Your task to perform on an android device: Add razer blade to the cart on bestbuy.com Image 0: 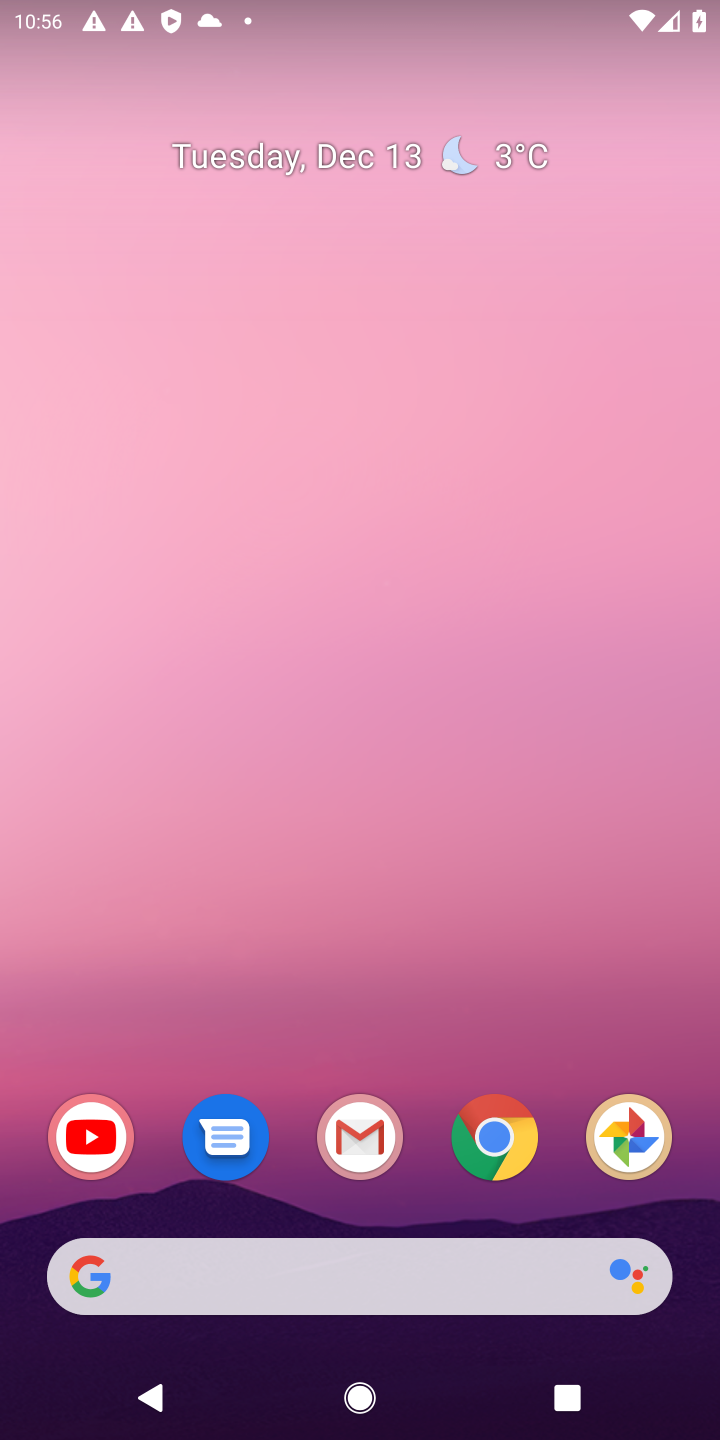
Step 0: click (496, 1156)
Your task to perform on an android device: Add razer blade to the cart on bestbuy.com Image 1: 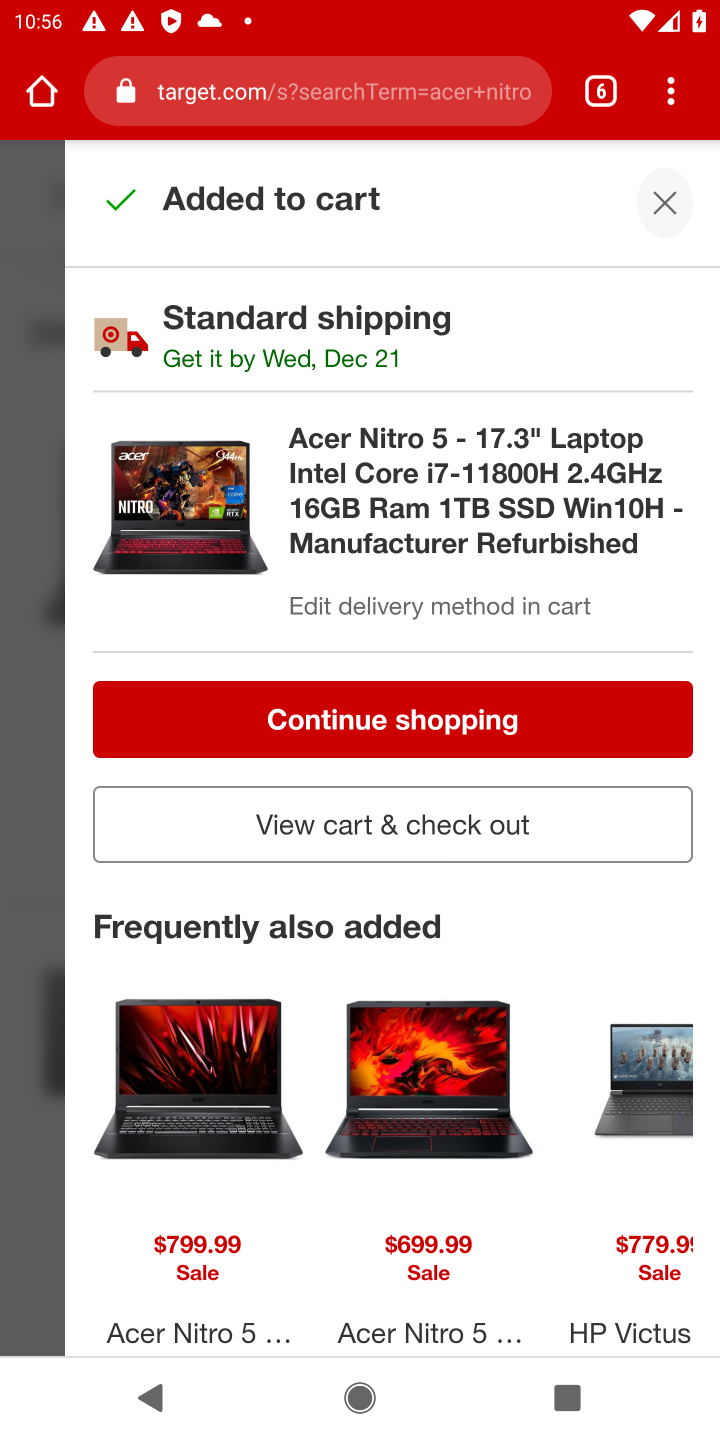
Step 1: click (602, 97)
Your task to perform on an android device: Add razer blade to the cart on bestbuy.com Image 2: 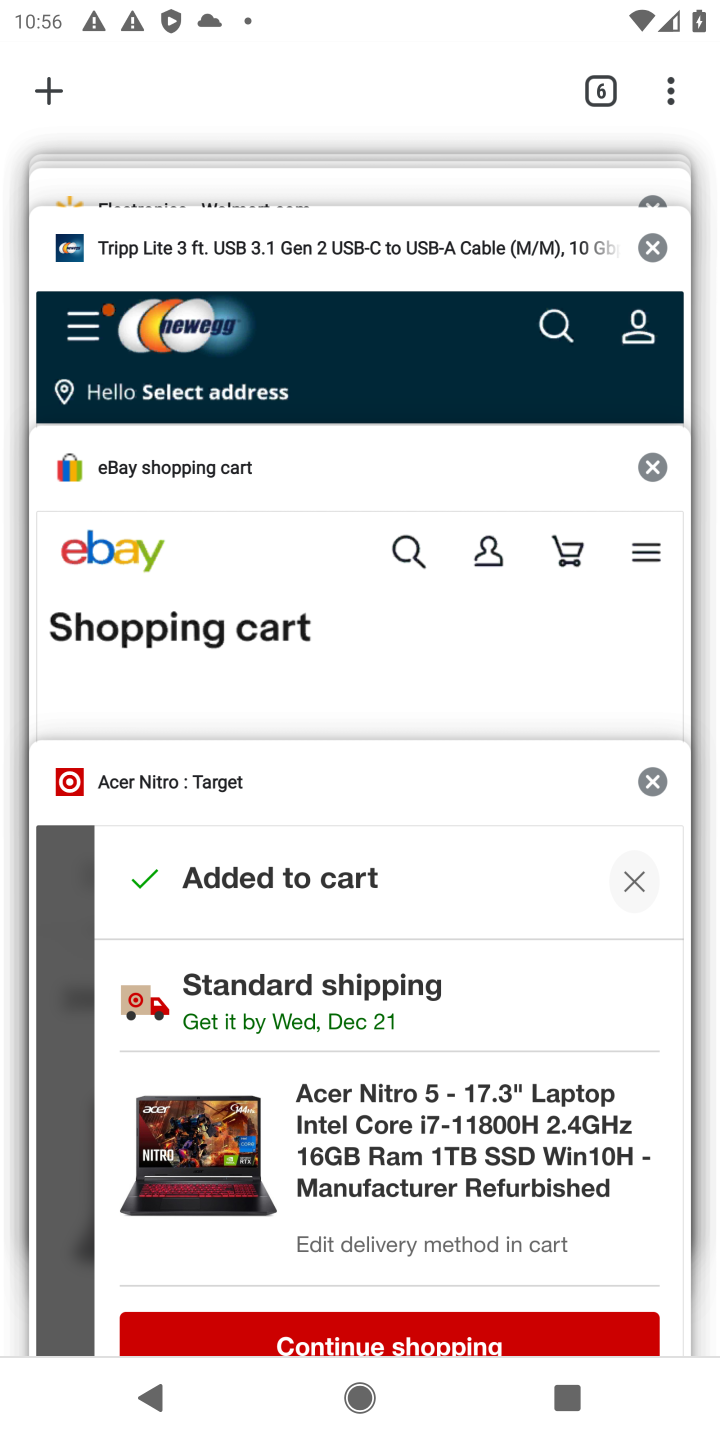
Step 2: drag from (280, 184) to (232, 854)
Your task to perform on an android device: Add razer blade to the cart on bestbuy.com Image 3: 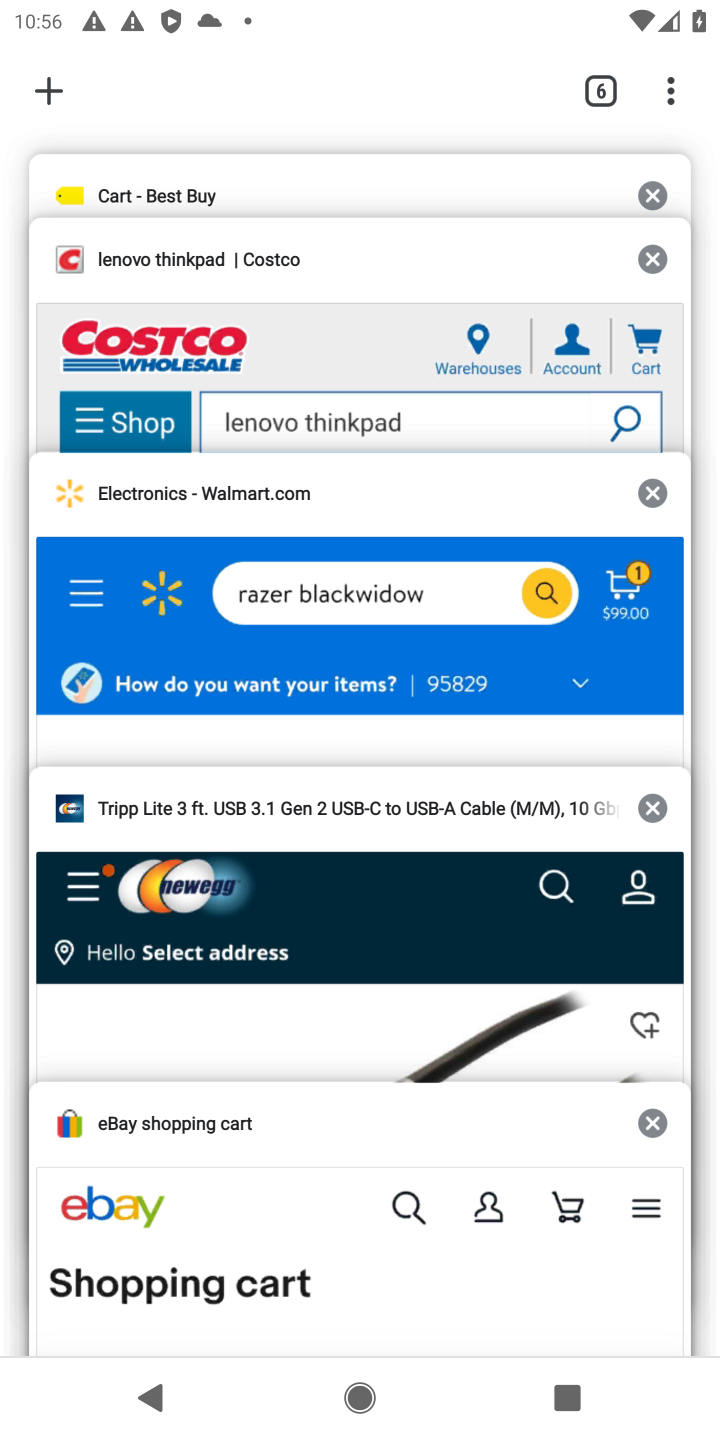
Step 3: click (251, 189)
Your task to perform on an android device: Add razer blade to the cart on bestbuy.com Image 4: 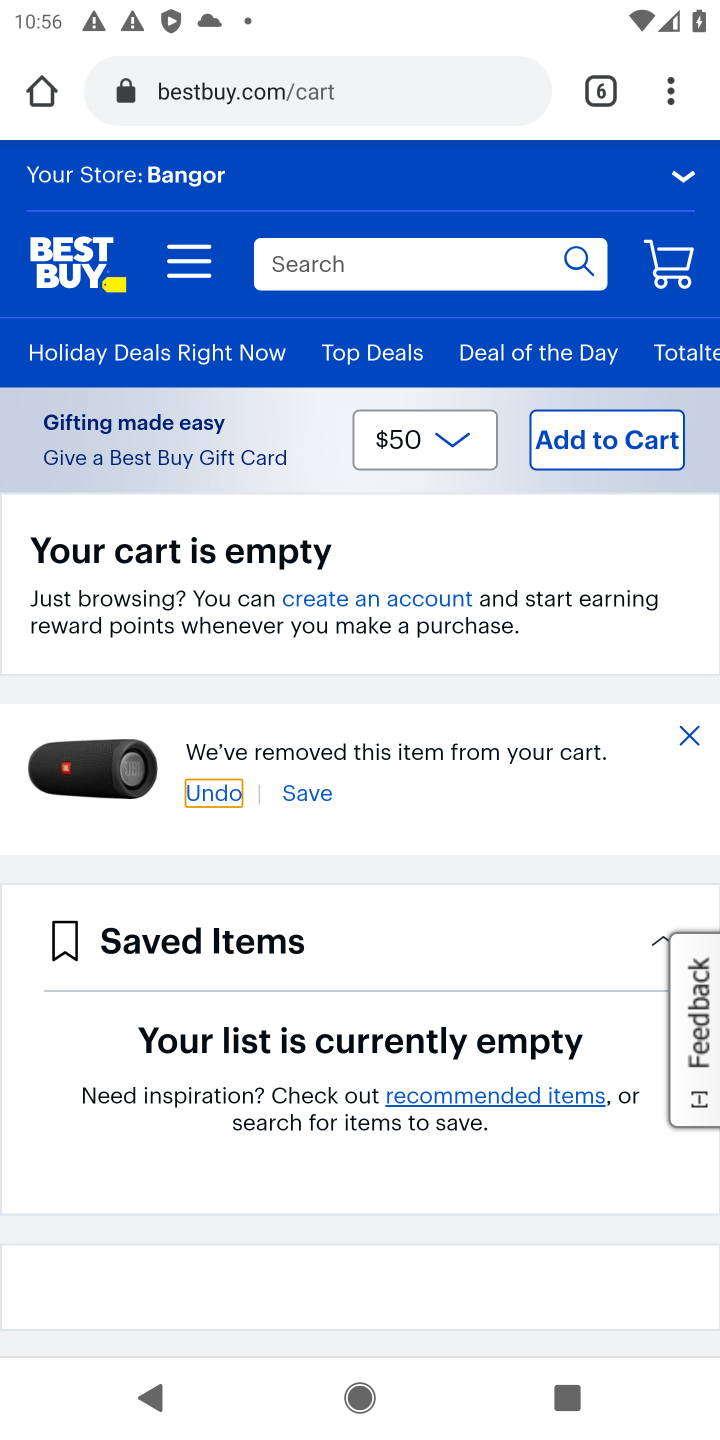
Step 4: click (344, 273)
Your task to perform on an android device: Add razer blade to the cart on bestbuy.com Image 5: 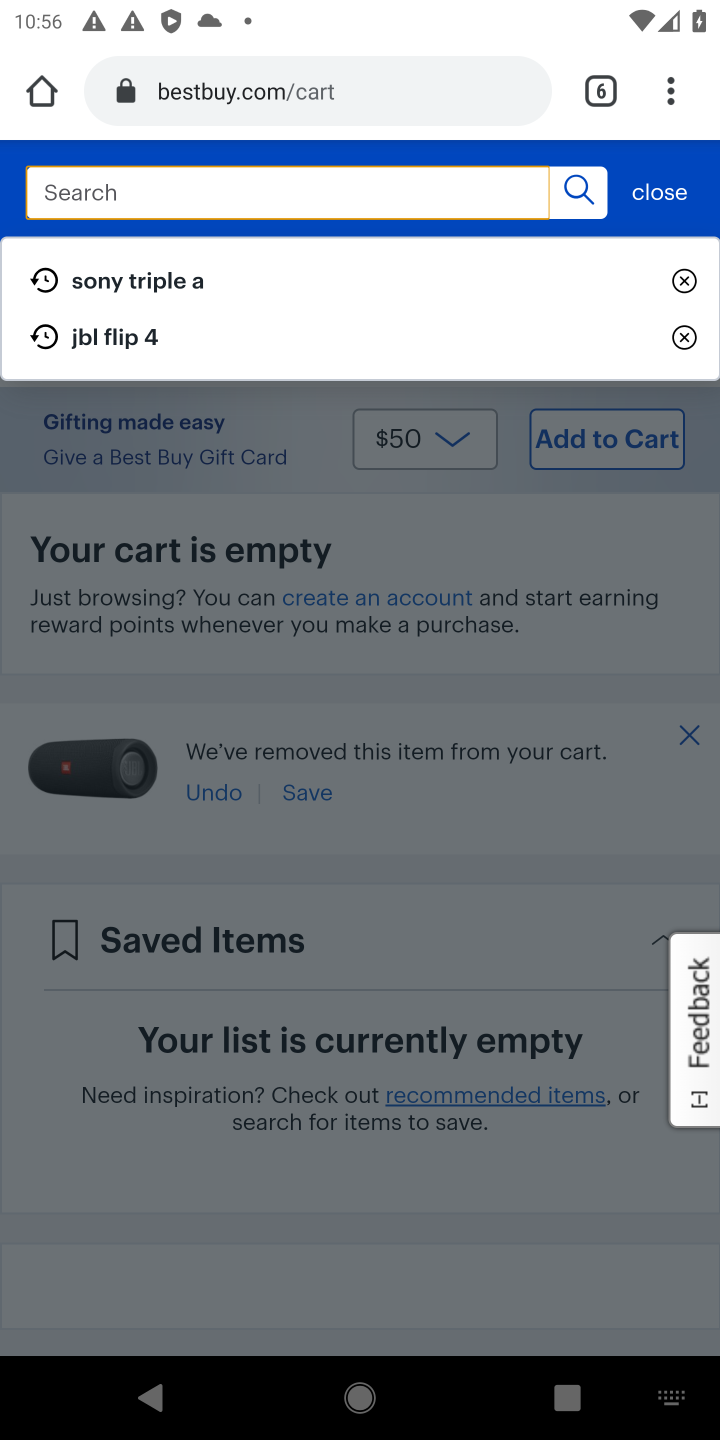
Step 5: type "razer blade"
Your task to perform on an android device: Add razer blade to the cart on bestbuy.com Image 6: 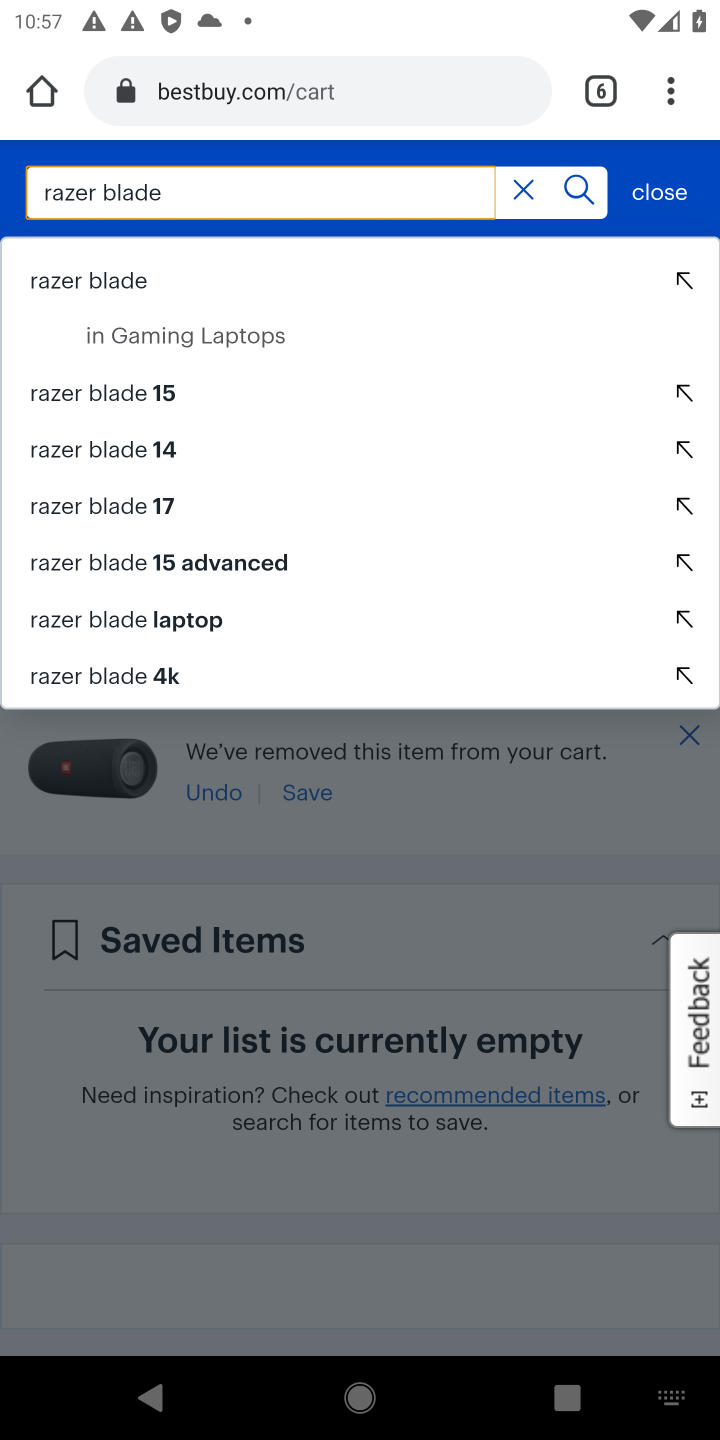
Step 6: click (118, 274)
Your task to perform on an android device: Add razer blade to the cart on bestbuy.com Image 7: 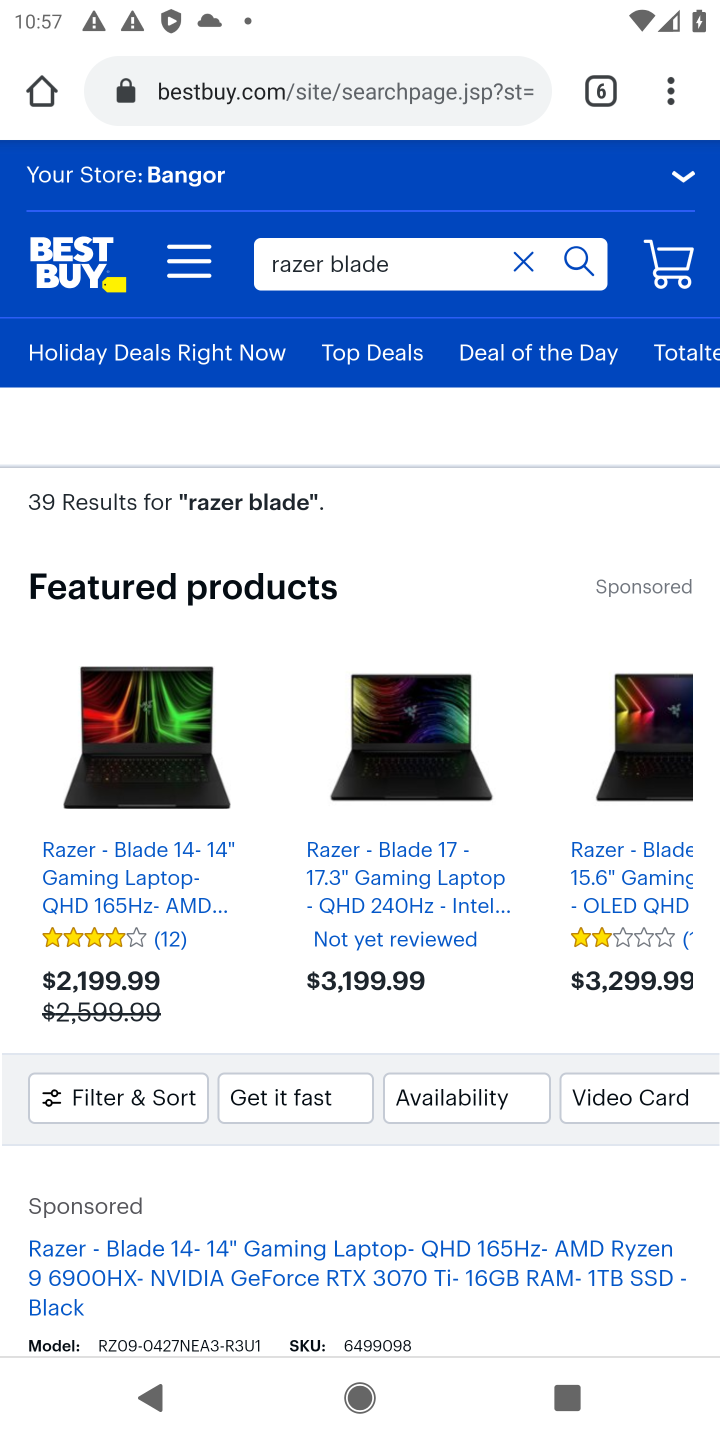
Step 7: drag from (213, 1199) to (230, 705)
Your task to perform on an android device: Add razer blade to the cart on bestbuy.com Image 8: 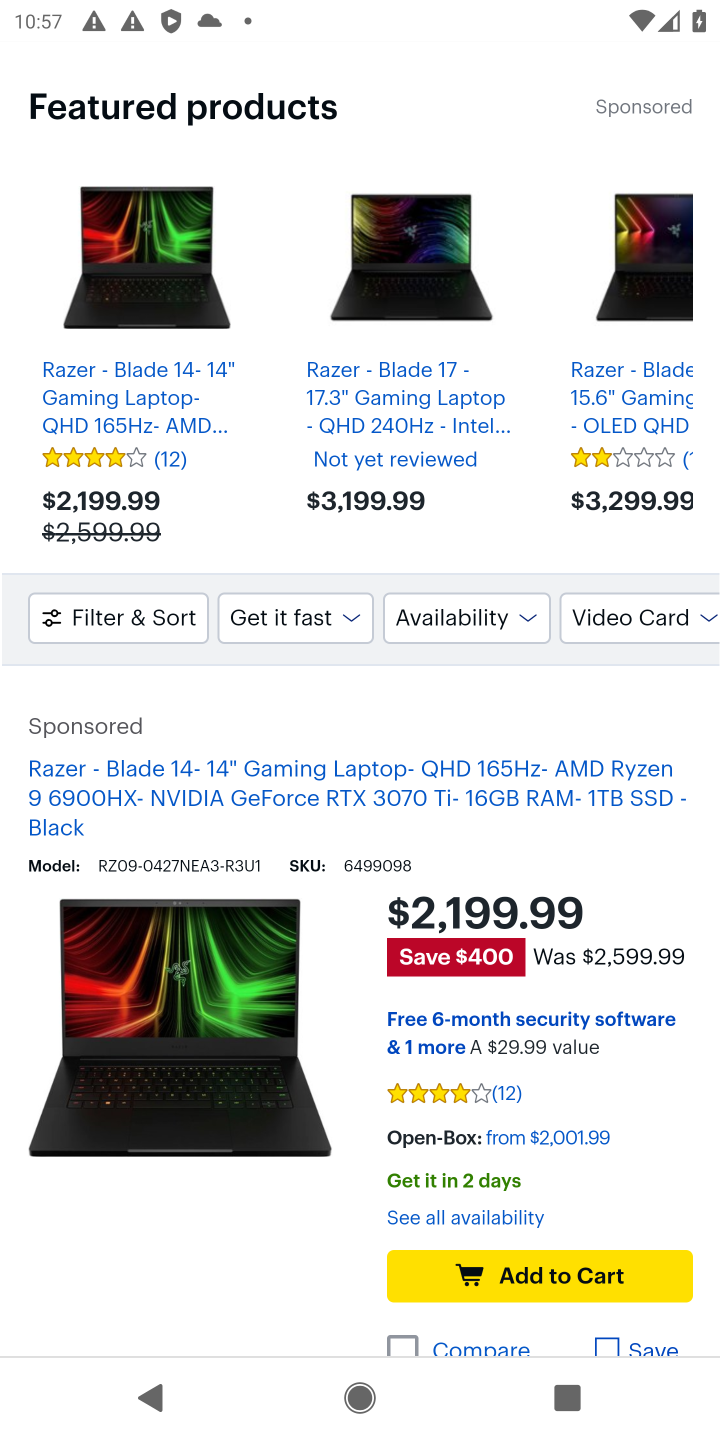
Step 8: click (498, 1268)
Your task to perform on an android device: Add razer blade to the cart on bestbuy.com Image 9: 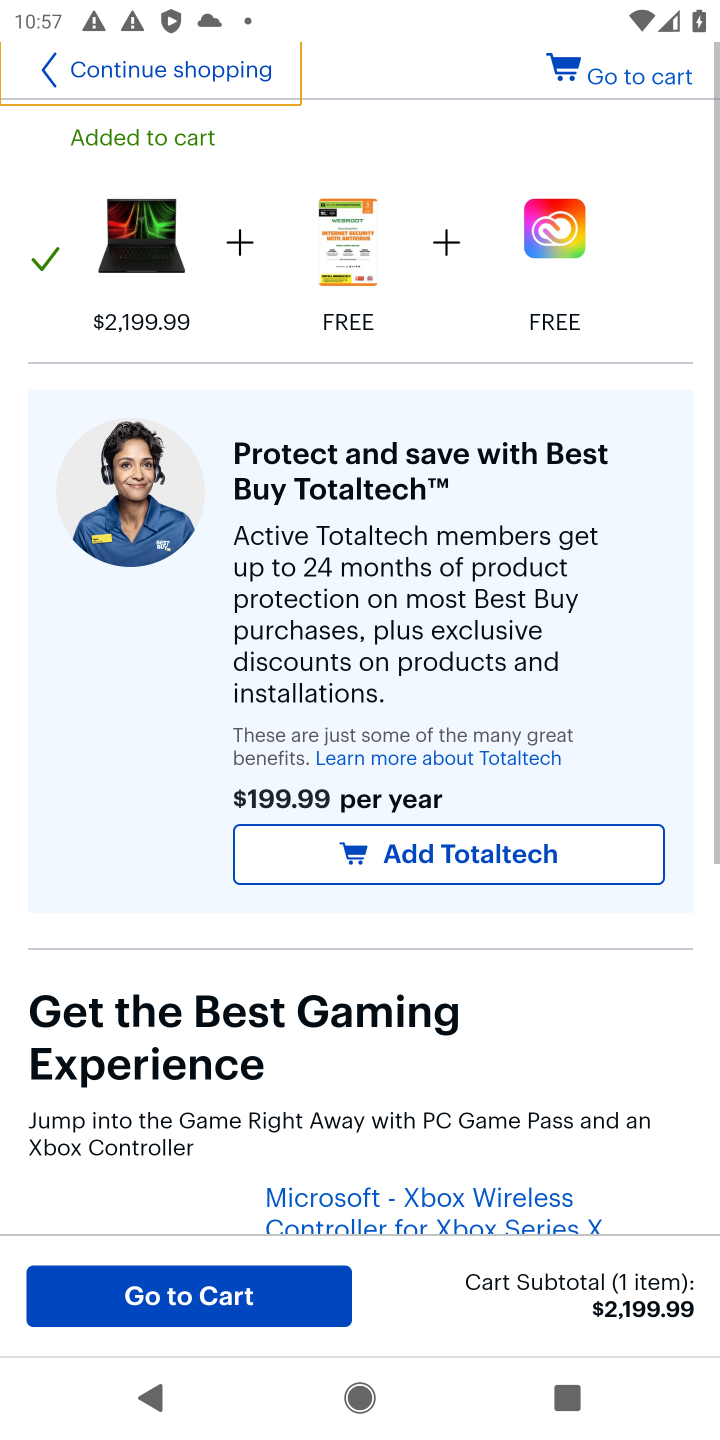
Step 9: task complete